Your task to perform on an android device: Show me productivity apps on the Play Store Image 0: 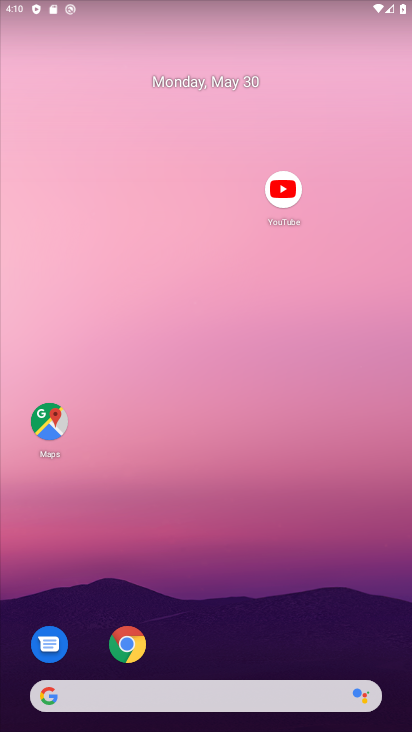
Step 0: drag from (183, 671) to (127, 216)
Your task to perform on an android device: Show me productivity apps on the Play Store Image 1: 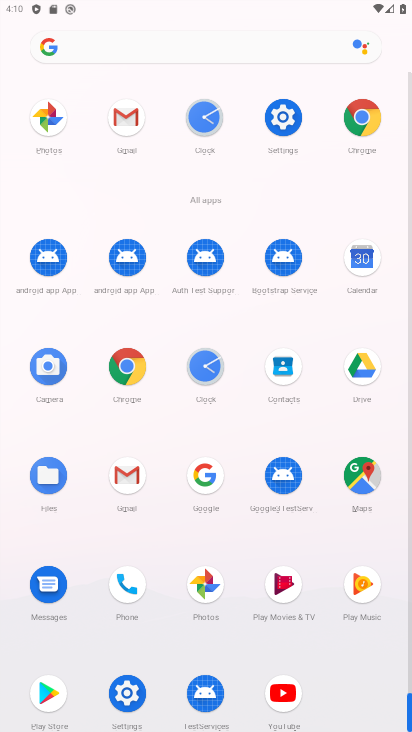
Step 1: click (51, 695)
Your task to perform on an android device: Show me productivity apps on the Play Store Image 2: 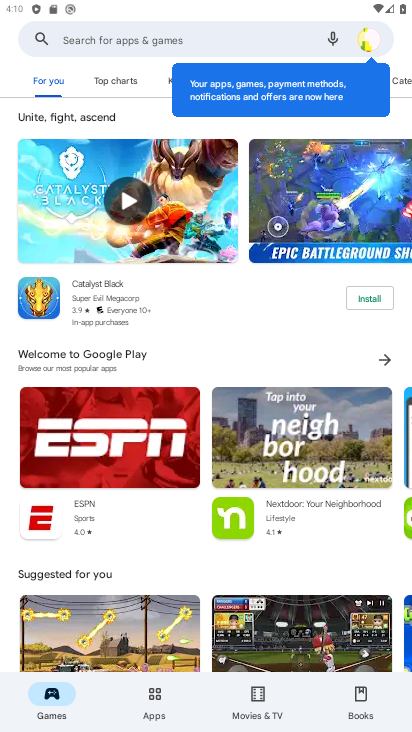
Step 2: click (156, 691)
Your task to perform on an android device: Show me productivity apps on the Play Store Image 3: 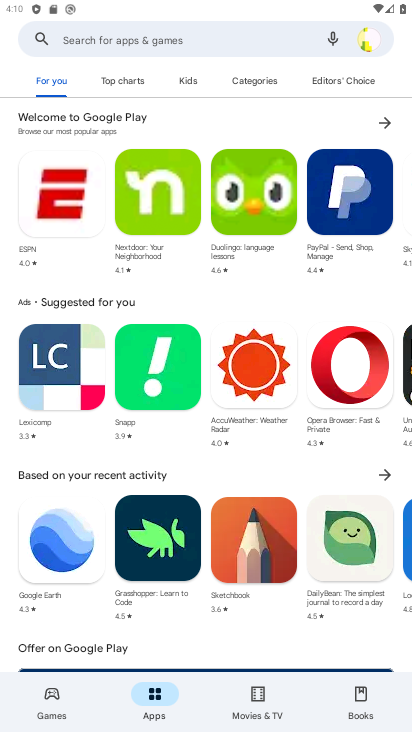
Step 3: click (272, 95)
Your task to perform on an android device: Show me productivity apps on the Play Store Image 4: 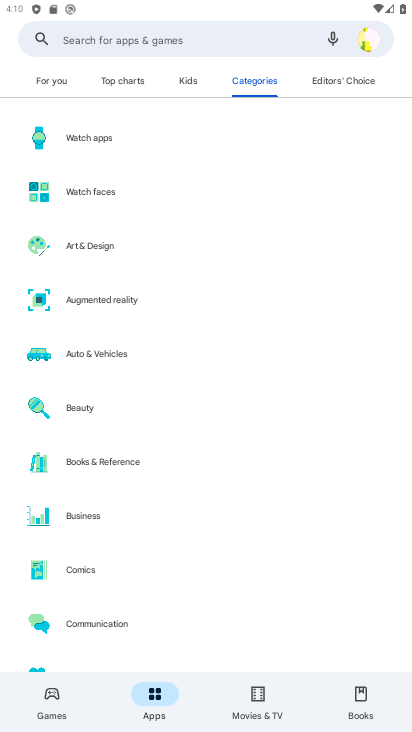
Step 4: drag from (156, 630) to (221, 24)
Your task to perform on an android device: Show me productivity apps on the Play Store Image 5: 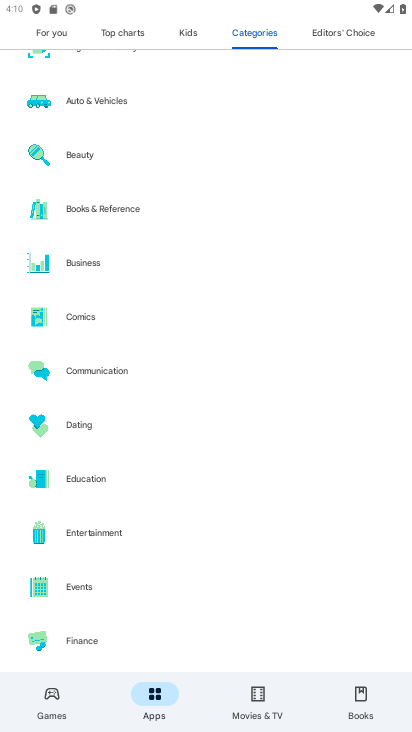
Step 5: drag from (162, 601) to (117, 153)
Your task to perform on an android device: Show me productivity apps on the Play Store Image 6: 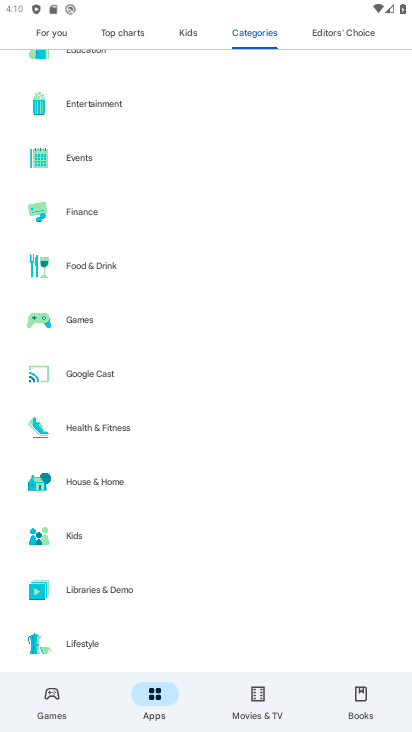
Step 6: drag from (71, 654) to (116, 36)
Your task to perform on an android device: Show me productivity apps on the Play Store Image 7: 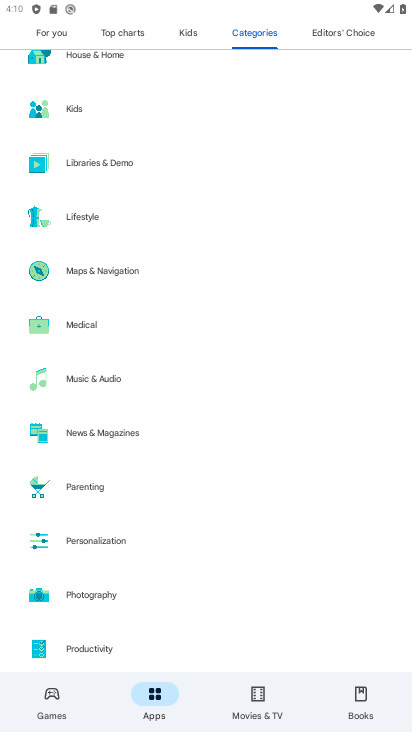
Step 7: drag from (137, 625) to (193, 114)
Your task to perform on an android device: Show me productivity apps on the Play Store Image 8: 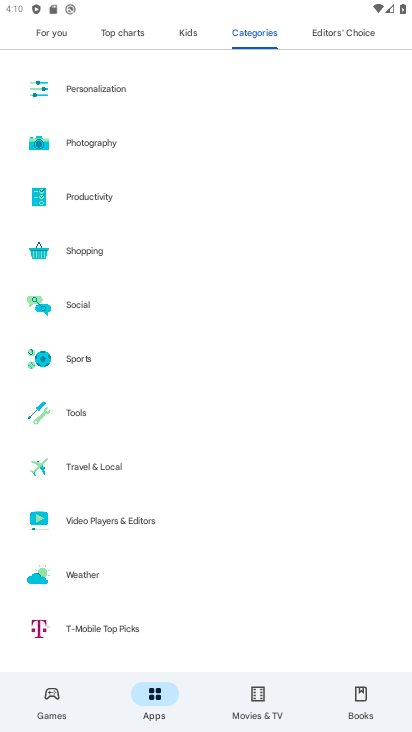
Step 8: click (92, 205)
Your task to perform on an android device: Show me productivity apps on the Play Store Image 9: 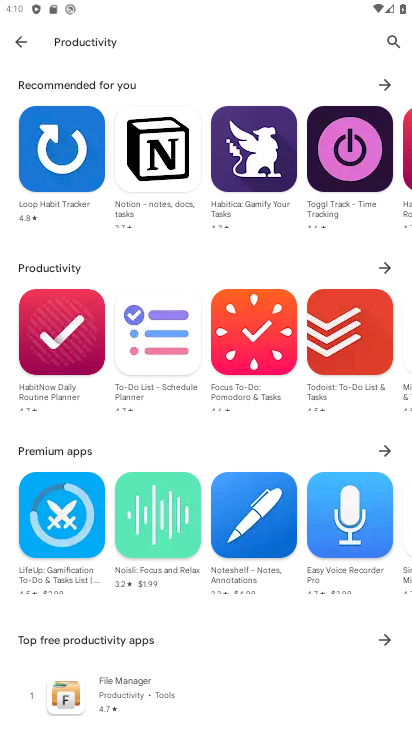
Step 9: click (386, 271)
Your task to perform on an android device: Show me productivity apps on the Play Store Image 10: 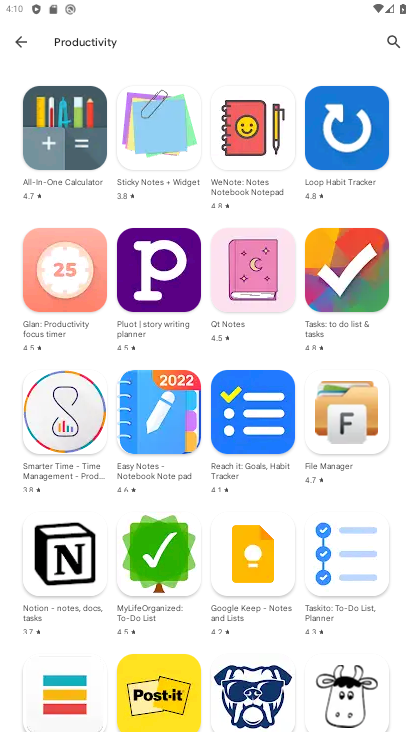
Step 10: task complete